Your task to perform on an android device: clear history in the chrome app Image 0: 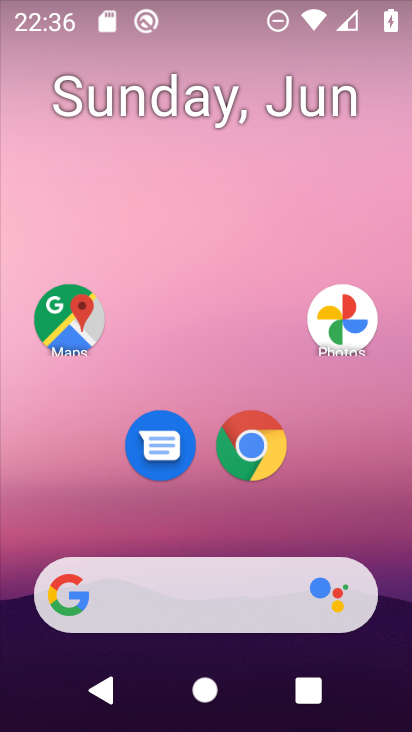
Step 0: click (261, 442)
Your task to perform on an android device: clear history in the chrome app Image 1: 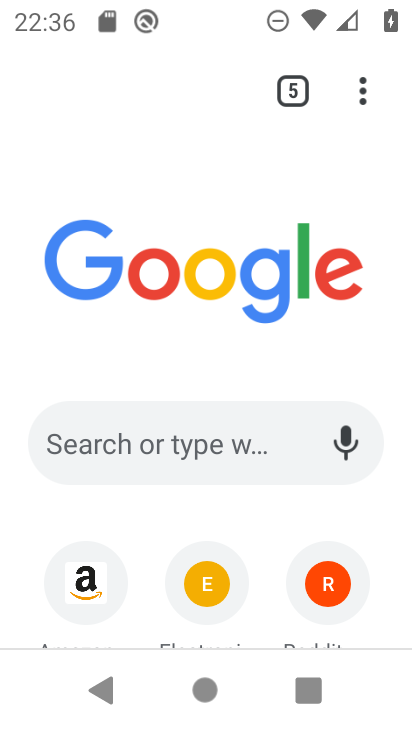
Step 1: drag from (362, 87) to (104, 517)
Your task to perform on an android device: clear history in the chrome app Image 2: 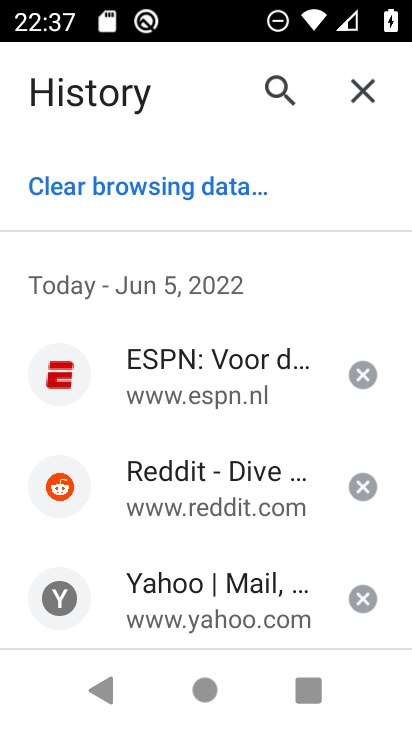
Step 2: click (154, 190)
Your task to perform on an android device: clear history in the chrome app Image 3: 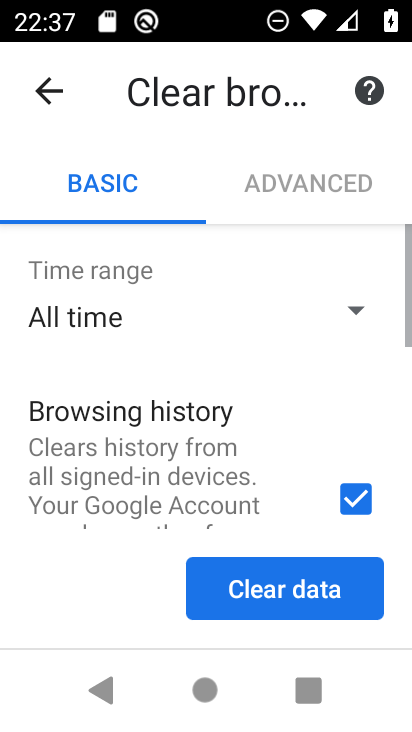
Step 3: click (270, 585)
Your task to perform on an android device: clear history in the chrome app Image 4: 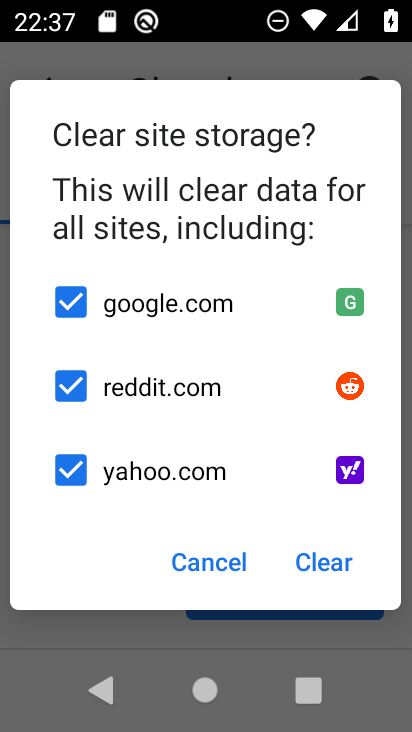
Step 4: click (337, 562)
Your task to perform on an android device: clear history in the chrome app Image 5: 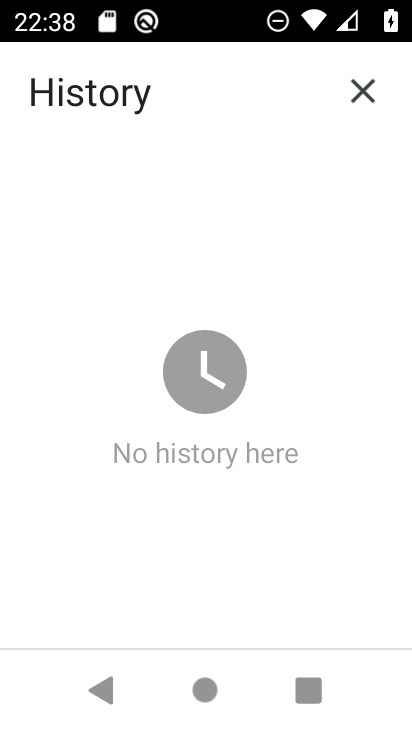
Step 5: press home button
Your task to perform on an android device: clear history in the chrome app Image 6: 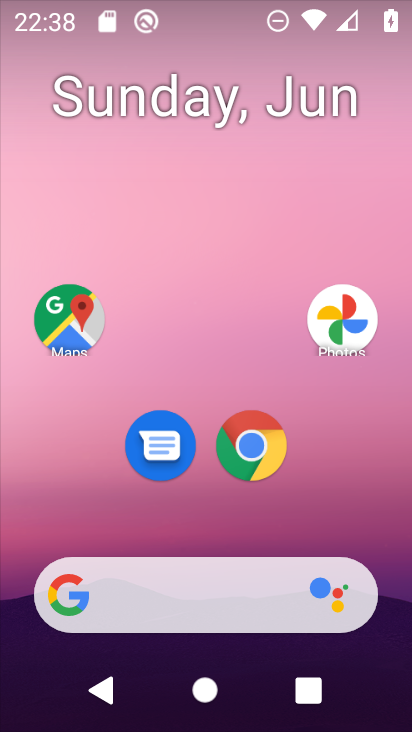
Step 6: click (251, 455)
Your task to perform on an android device: clear history in the chrome app Image 7: 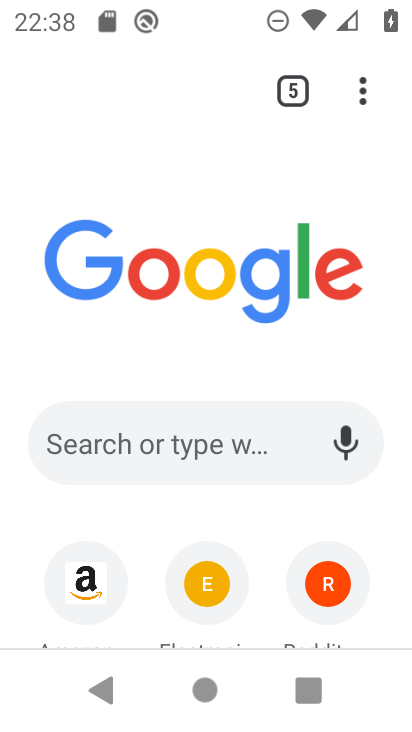
Step 7: drag from (362, 103) to (98, 519)
Your task to perform on an android device: clear history in the chrome app Image 8: 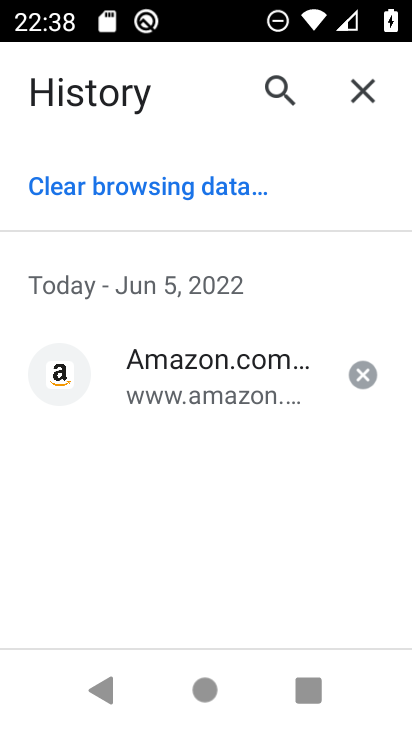
Step 8: click (138, 184)
Your task to perform on an android device: clear history in the chrome app Image 9: 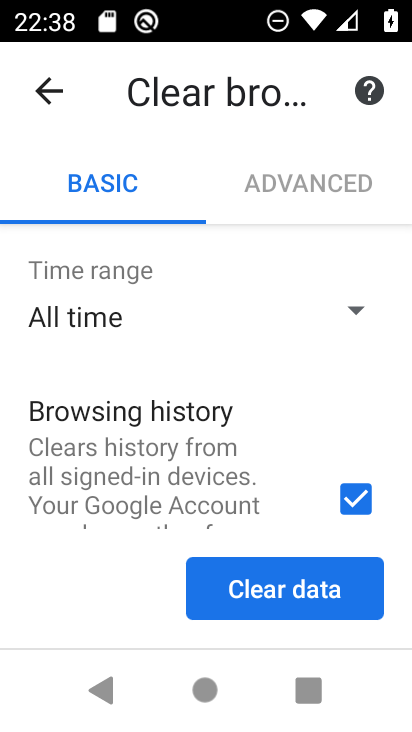
Step 9: click (284, 592)
Your task to perform on an android device: clear history in the chrome app Image 10: 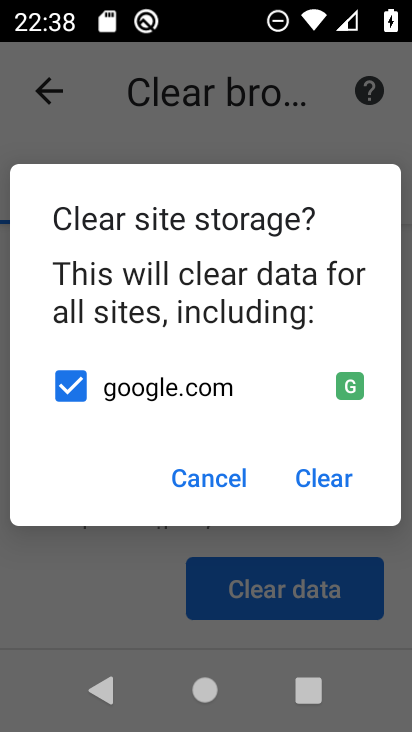
Step 10: click (319, 488)
Your task to perform on an android device: clear history in the chrome app Image 11: 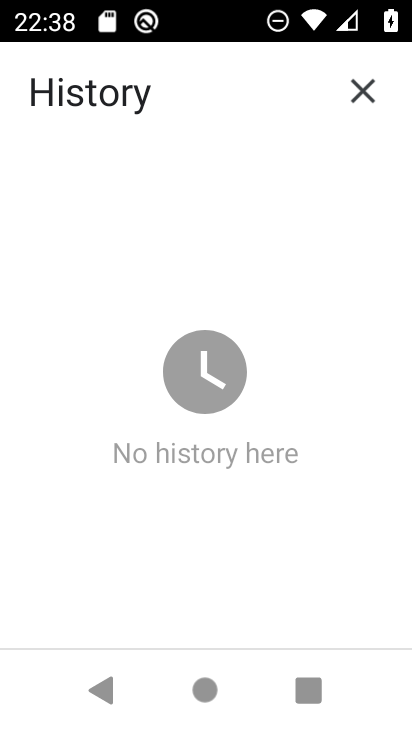
Step 11: task complete